Your task to perform on an android device: turn off picture-in-picture Image 0: 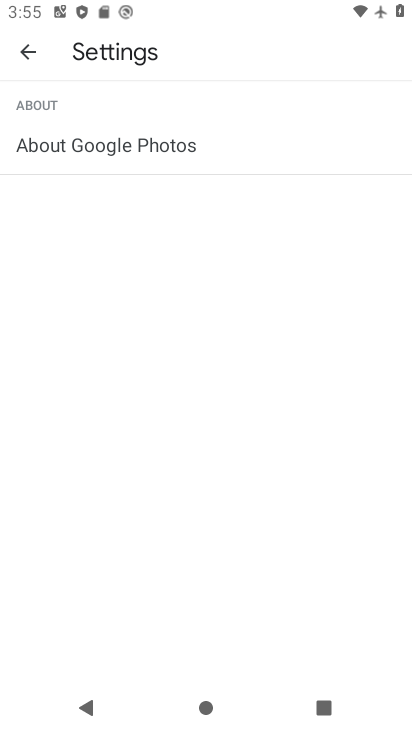
Step 0: press home button
Your task to perform on an android device: turn off picture-in-picture Image 1: 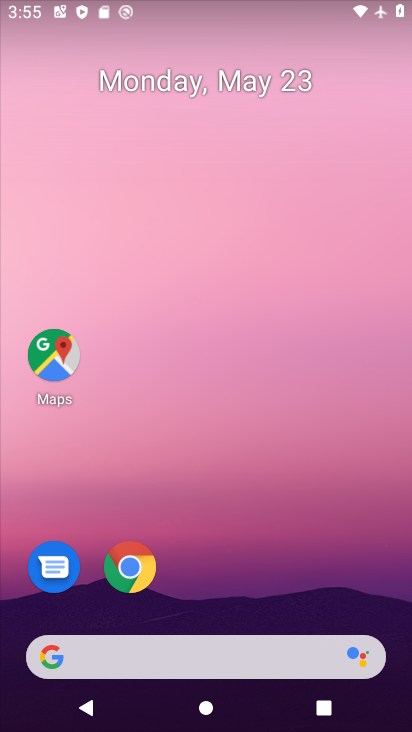
Step 1: drag from (376, 556) to (271, 99)
Your task to perform on an android device: turn off picture-in-picture Image 2: 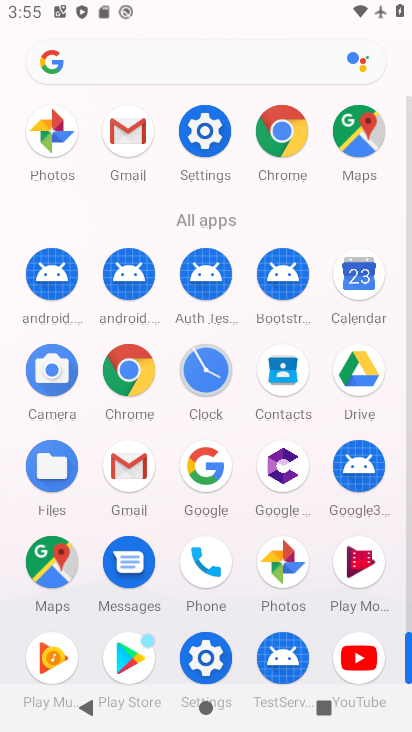
Step 2: click (211, 654)
Your task to perform on an android device: turn off picture-in-picture Image 3: 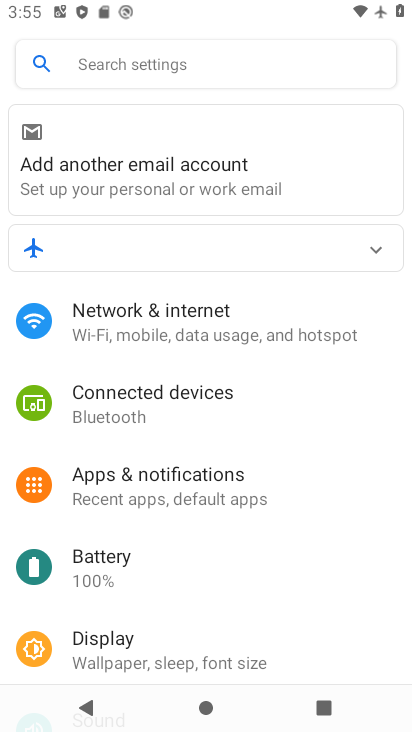
Step 3: click (152, 493)
Your task to perform on an android device: turn off picture-in-picture Image 4: 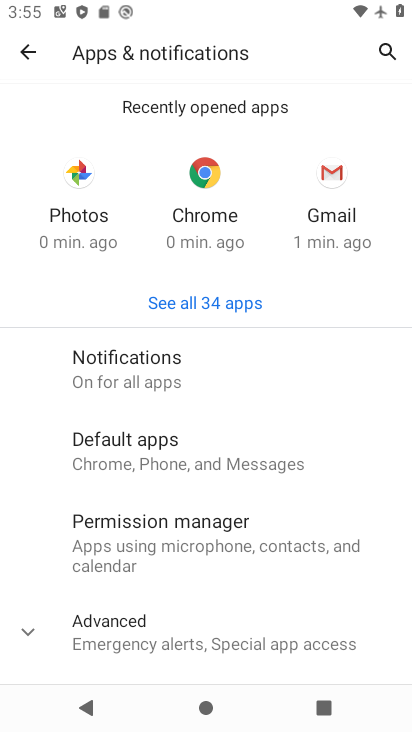
Step 4: click (82, 620)
Your task to perform on an android device: turn off picture-in-picture Image 5: 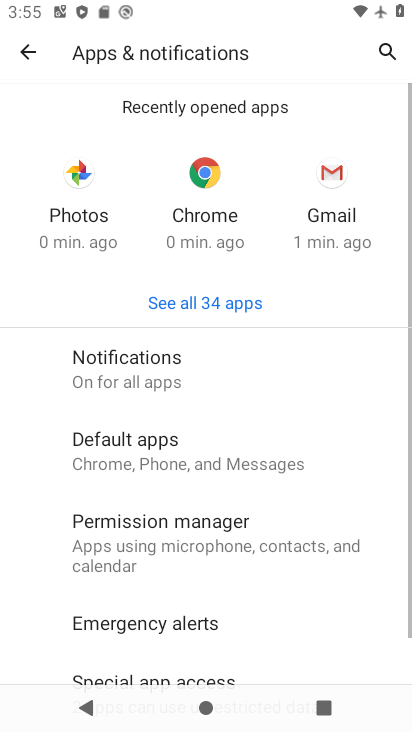
Step 5: drag from (229, 618) to (144, 187)
Your task to perform on an android device: turn off picture-in-picture Image 6: 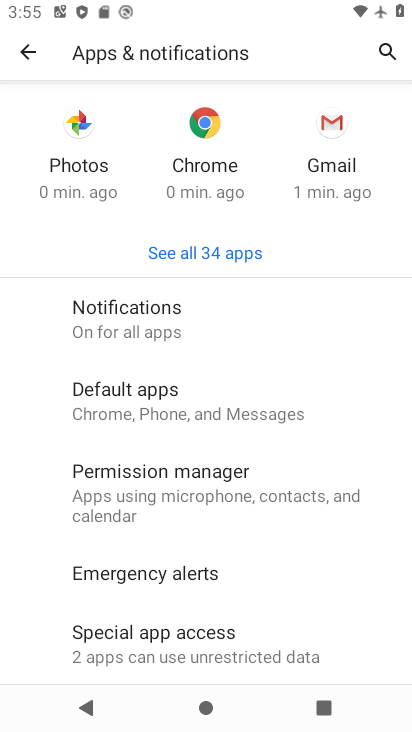
Step 6: click (150, 643)
Your task to perform on an android device: turn off picture-in-picture Image 7: 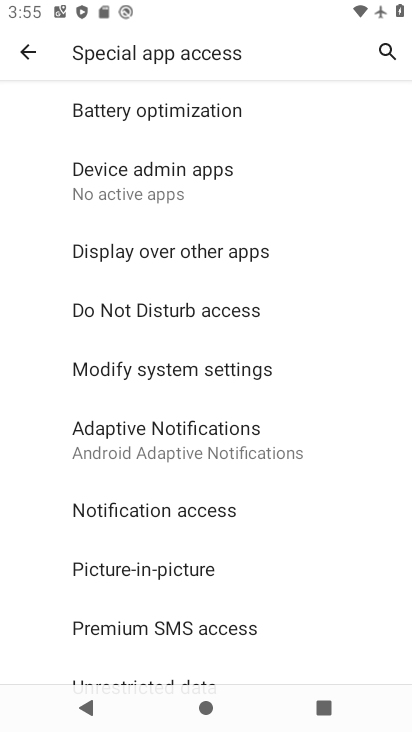
Step 7: click (126, 568)
Your task to perform on an android device: turn off picture-in-picture Image 8: 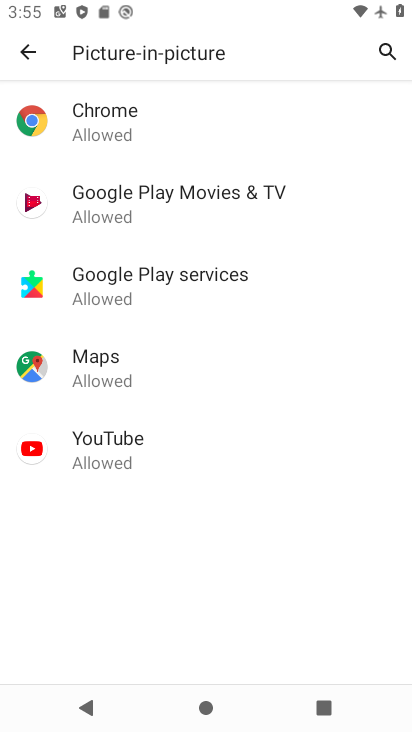
Step 8: click (111, 454)
Your task to perform on an android device: turn off picture-in-picture Image 9: 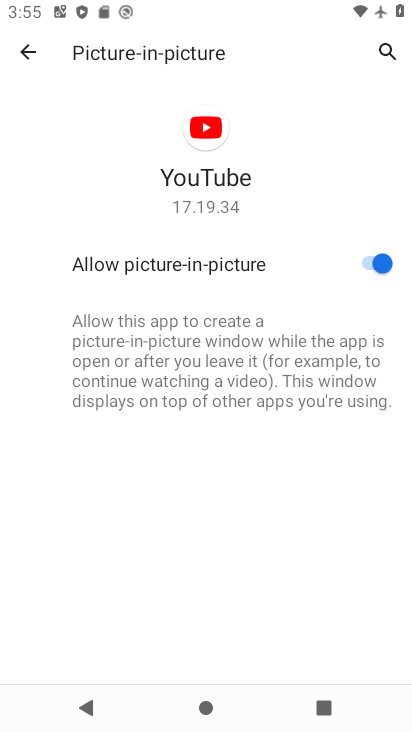
Step 9: click (367, 264)
Your task to perform on an android device: turn off picture-in-picture Image 10: 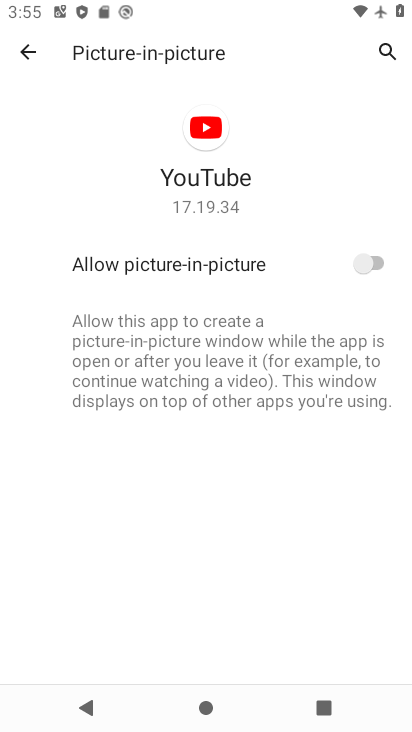
Step 10: task complete